Your task to perform on an android device: turn on the 12-hour format for clock Image 0: 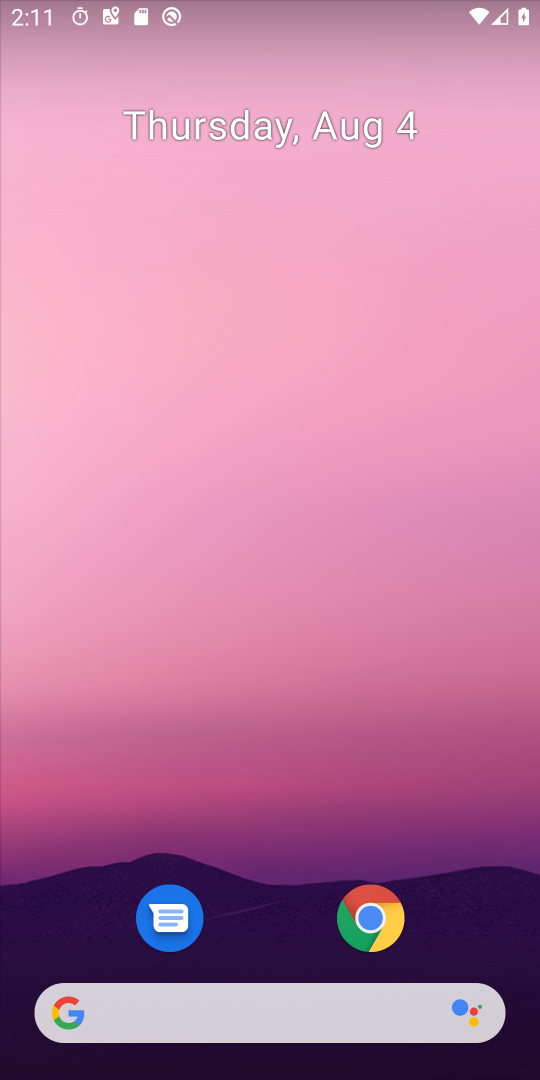
Step 0: drag from (258, 929) to (296, 230)
Your task to perform on an android device: turn on the 12-hour format for clock Image 1: 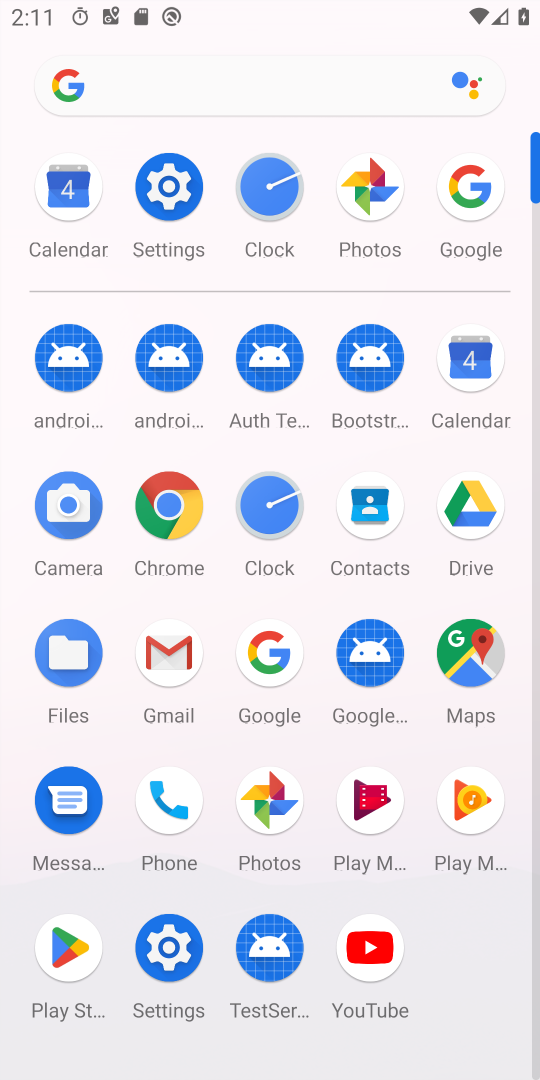
Step 1: click (249, 190)
Your task to perform on an android device: turn on the 12-hour format for clock Image 2: 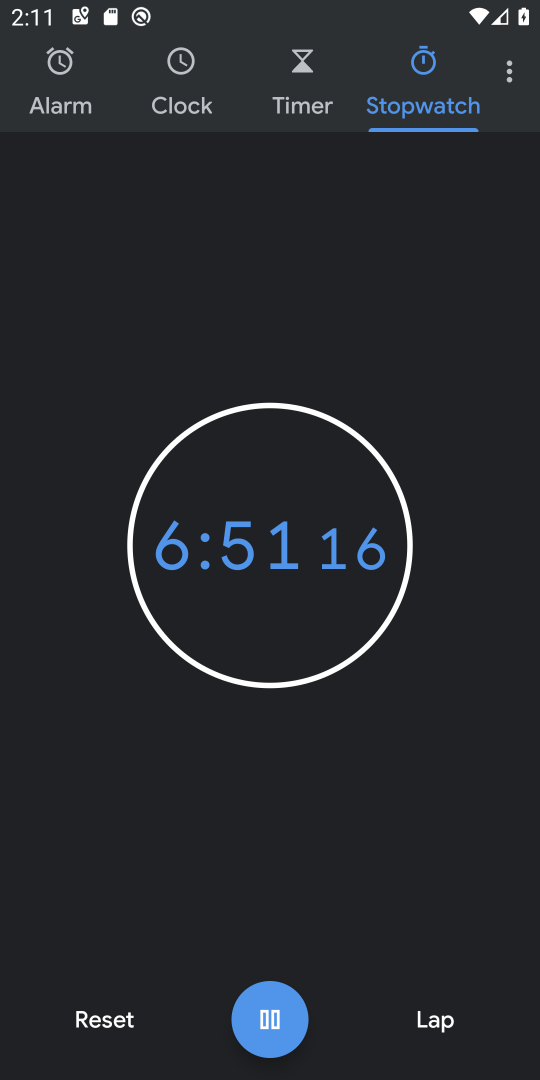
Step 2: click (508, 78)
Your task to perform on an android device: turn on the 12-hour format for clock Image 3: 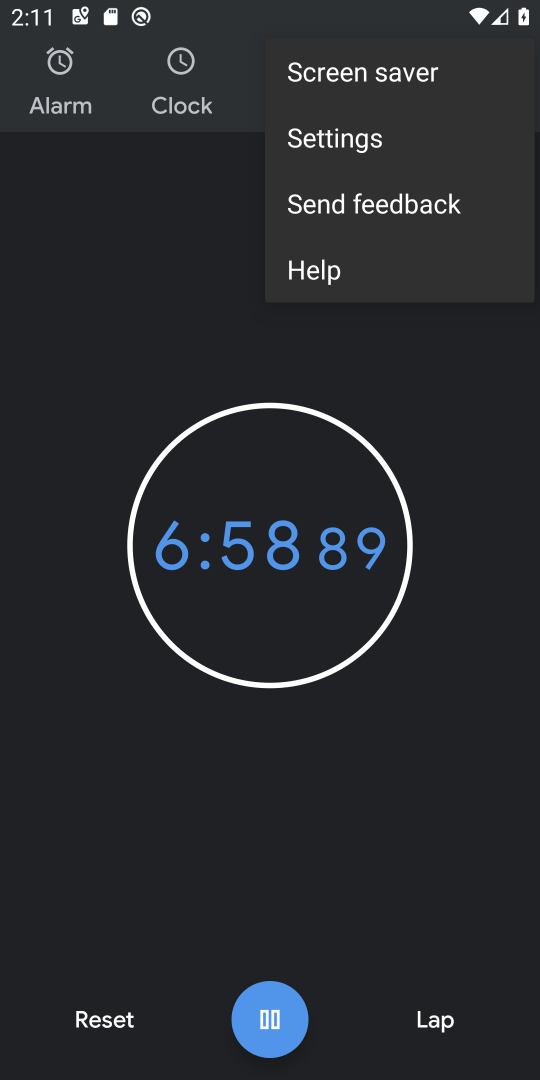
Step 3: click (313, 142)
Your task to perform on an android device: turn on the 12-hour format for clock Image 4: 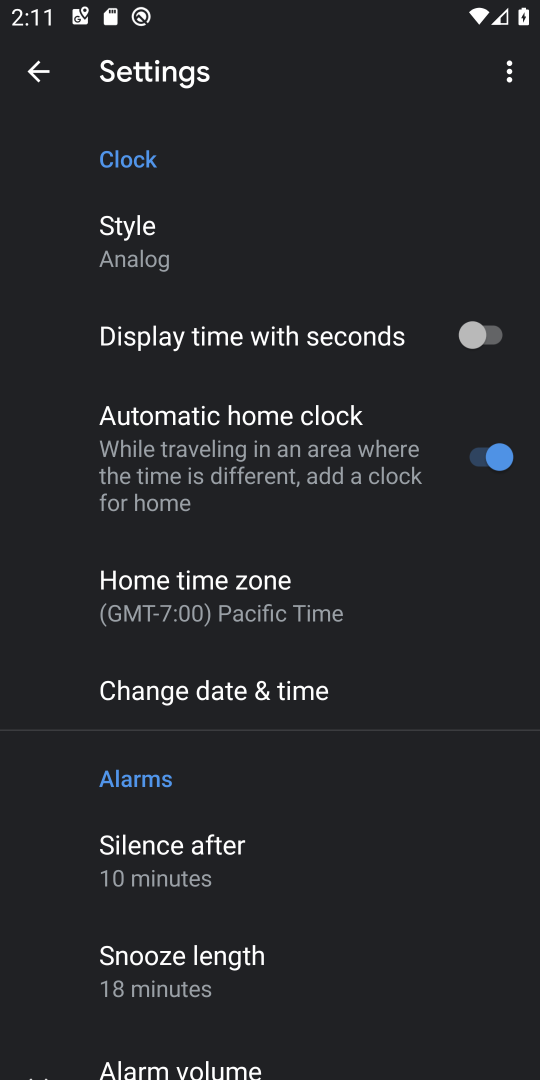
Step 4: click (278, 692)
Your task to perform on an android device: turn on the 12-hour format for clock Image 5: 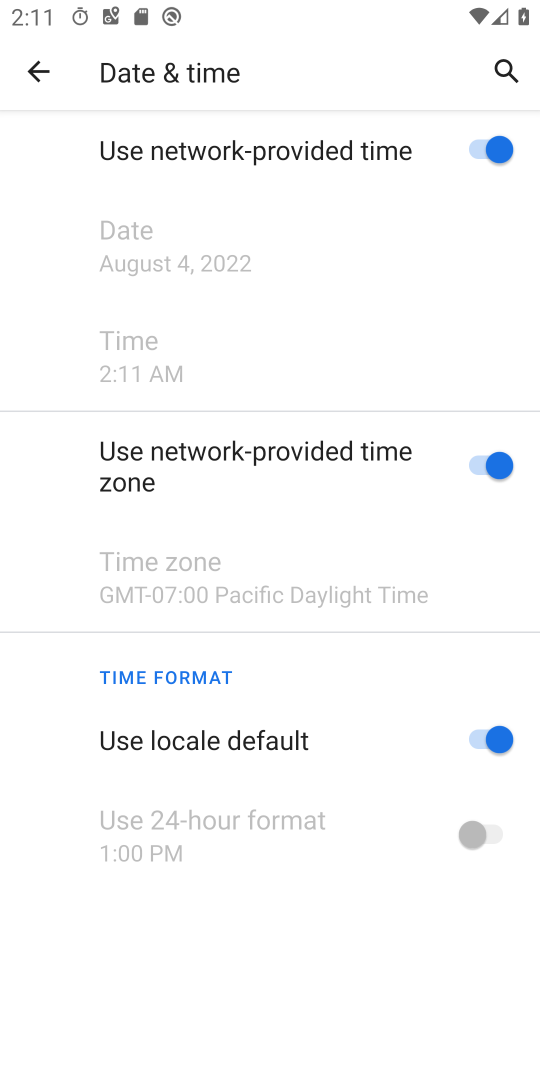
Step 5: task complete